Your task to perform on an android device: Open network settings Image 0: 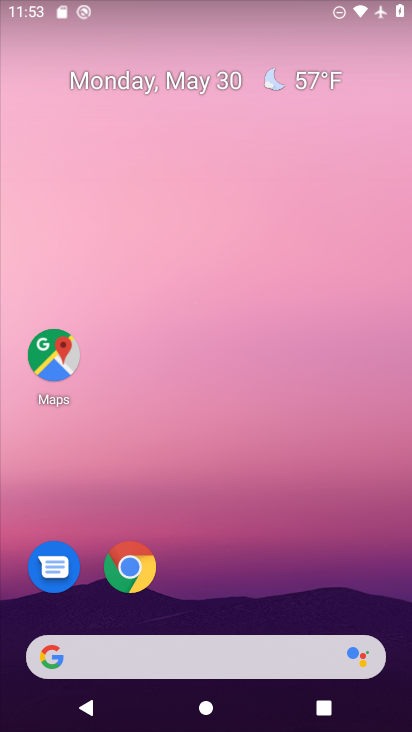
Step 0: drag from (239, 481) to (244, 187)
Your task to perform on an android device: Open network settings Image 1: 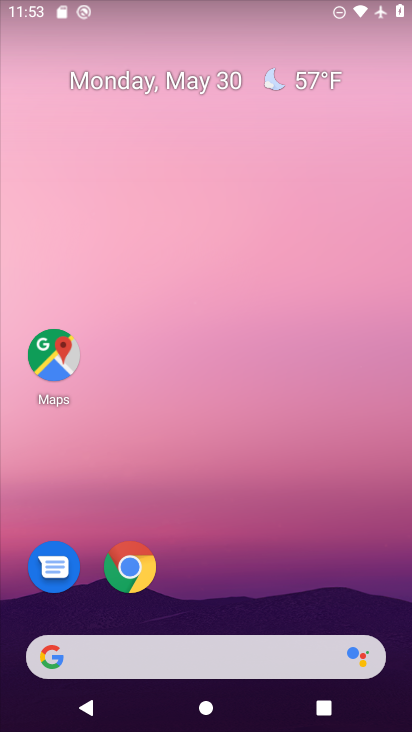
Step 1: drag from (200, 604) to (213, 170)
Your task to perform on an android device: Open network settings Image 2: 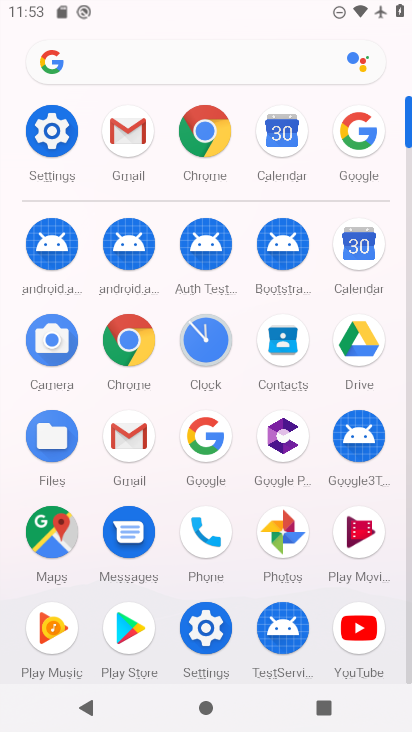
Step 2: click (33, 127)
Your task to perform on an android device: Open network settings Image 3: 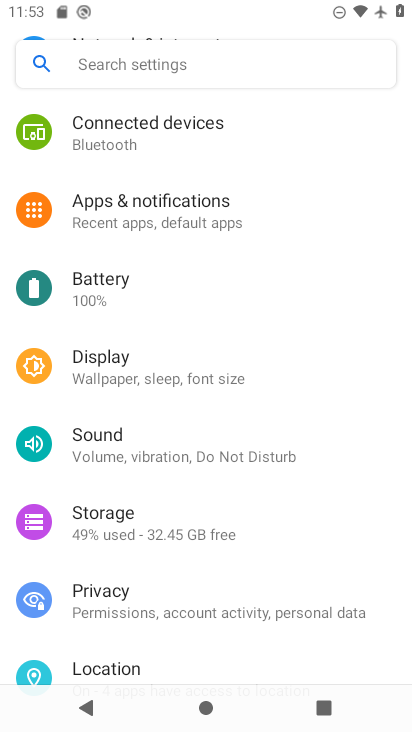
Step 3: drag from (191, 178) to (186, 481)
Your task to perform on an android device: Open network settings Image 4: 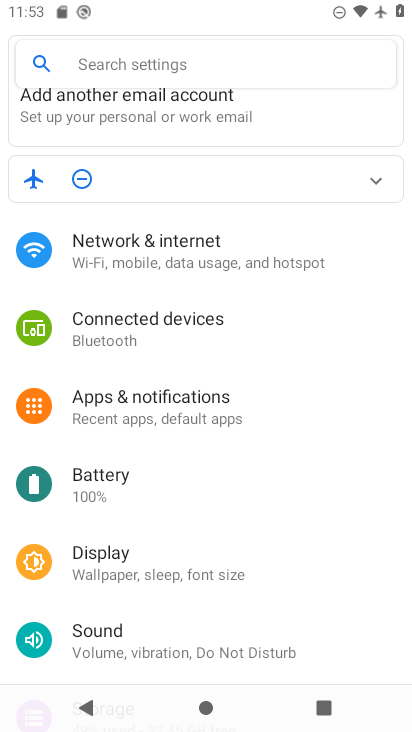
Step 4: click (174, 249)
Your task to perform on an android device: Open network settings Image 5: 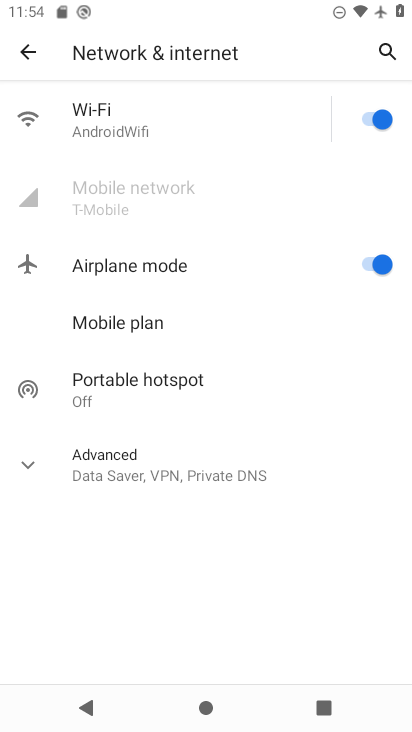
Step 5: task complete